Your task to perform on an android device: turn on priority inbox in the gmail app Image 0: 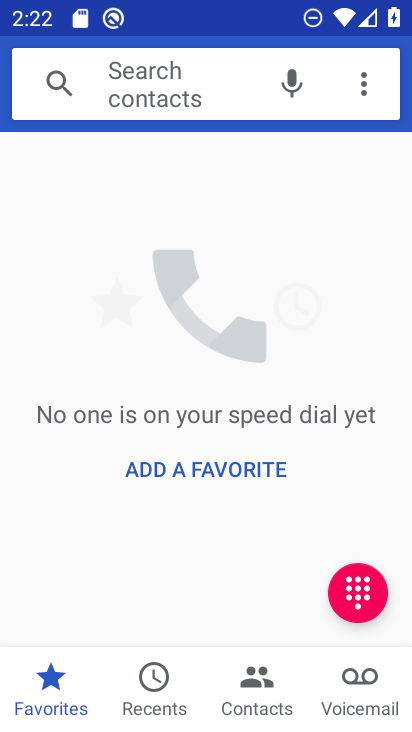
Step 0: press home button
Your task to perform on an android device: turn on priority inbox in the gmail app Image 1: 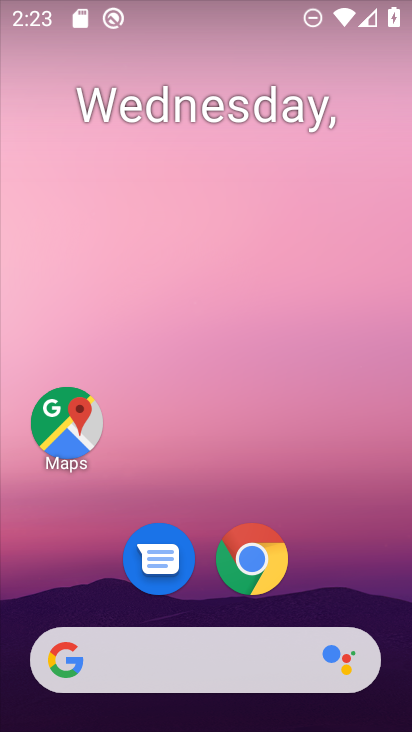
Step 1: drag from (345, 574) to (345, 175)
Your task to perform on an android device: turn on priority inbox in the gmail app Image 2: 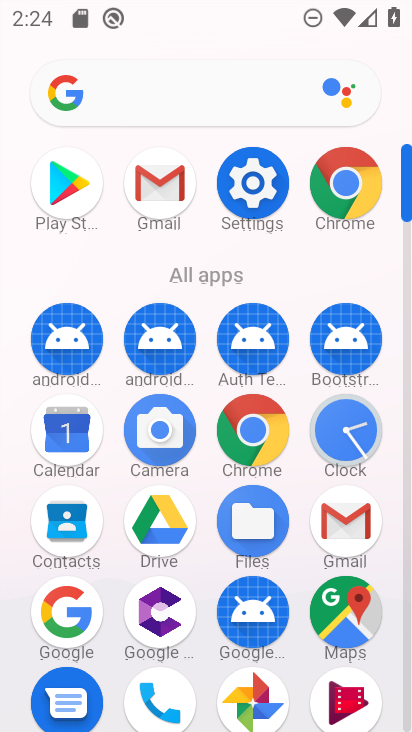
Step 2: click (328, 553)
Your task to perform on an android device: turn on priority inbox in the gmail app Image 3: 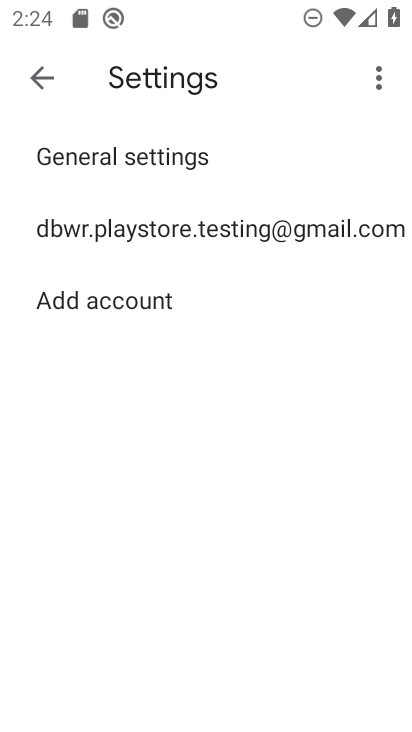
Step 3: click (319, 224)
Your task to perform on an android device: turn on priority inbox in the gmail app Image 4: 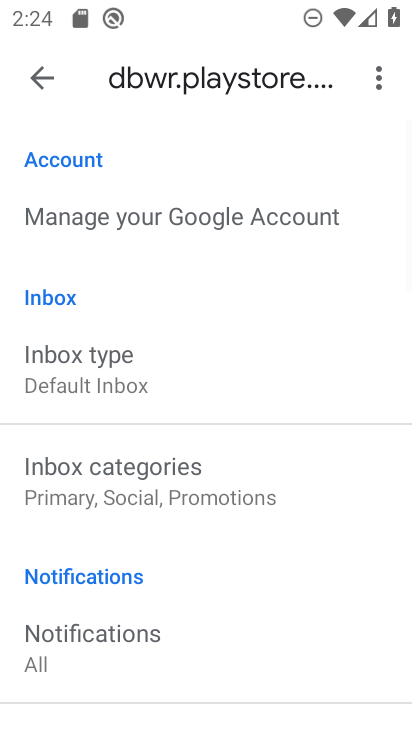
Step 4: click (85, 347)
Your task to perform on an android device: turn on priority inbox in the gmail app Image 5: 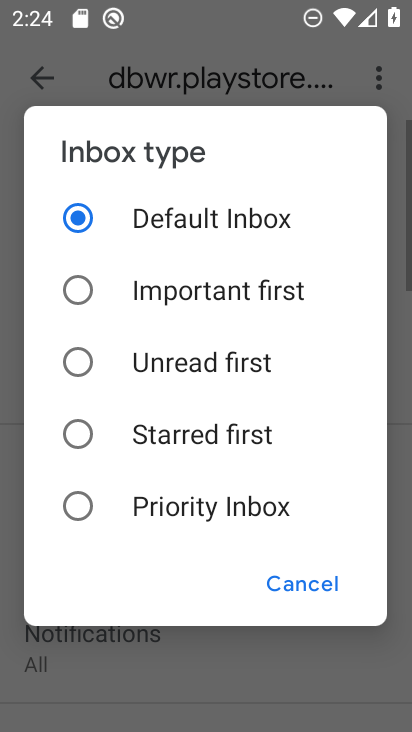
Step 5: click (103, 490)
Your task to perform on an android device: turn on priority inbox in the gmail app Image 6: 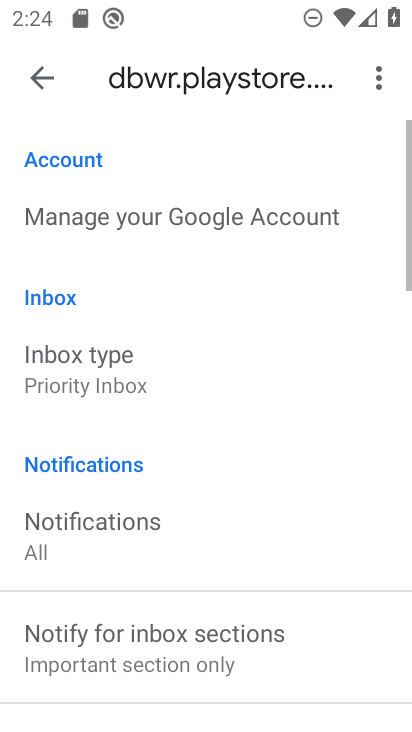
Step 6: task complete